Your task to perform on an android device: uninstall "Microsoft Authenticator" Image 0: 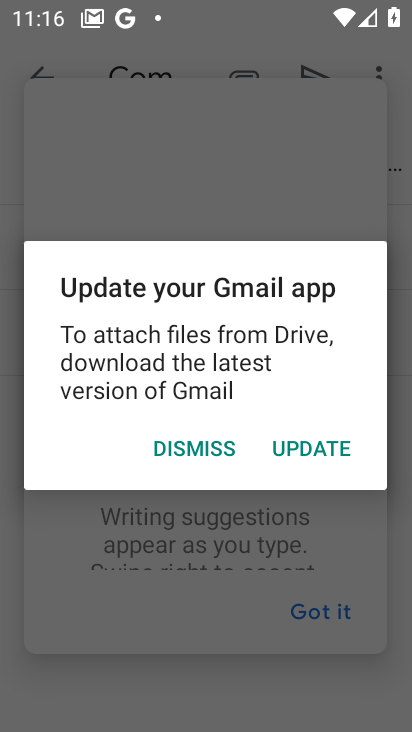
Step 0: press home button
Your task to perform on an android device: uninstall "Microsoft Authenticator" Image 1: 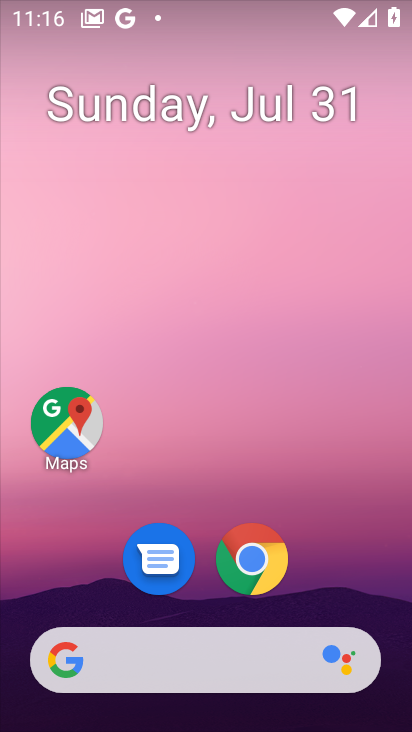
Step 1: drag from (40, 578) to (204, 11)
Your task to perform on an android device: uninstall "Microsoft Authenticator" Image 2: 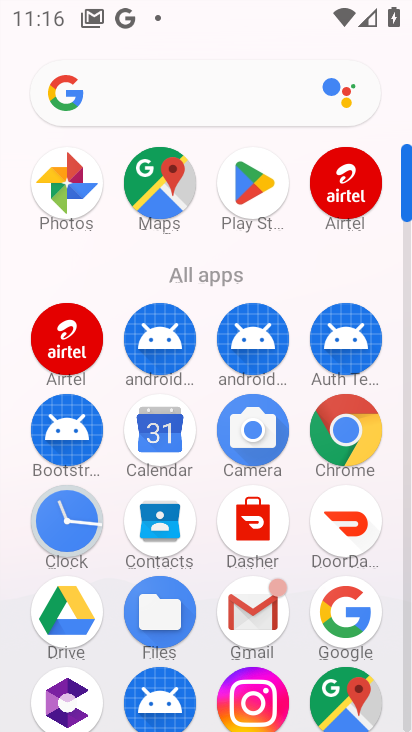
Step 2: click (253, 190)
Your task to perform on an android device: uninstall "Microsoft Authenticator" Image 3: 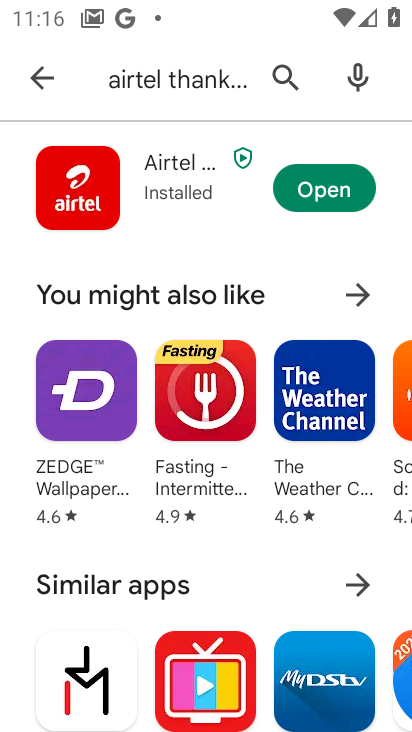
Step 3: click (272, 91)
Your task to perform on an android device: uninstall "Microsoft Authenticator" Image 4: 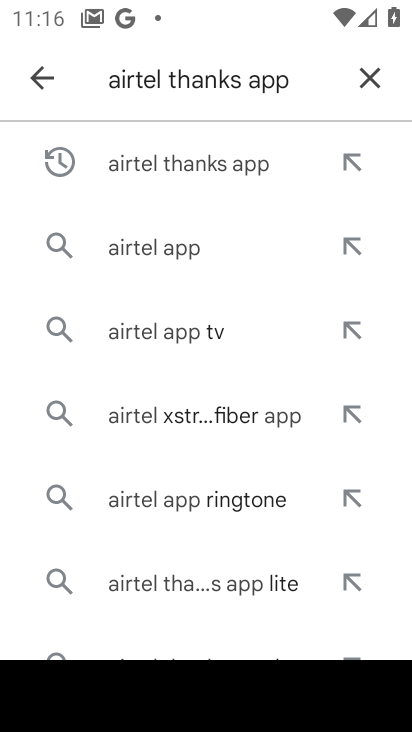
Step 4: click (387, 88)
Your task to perform on an android device: uninstall "Microsoft Authenticator" Image 5: 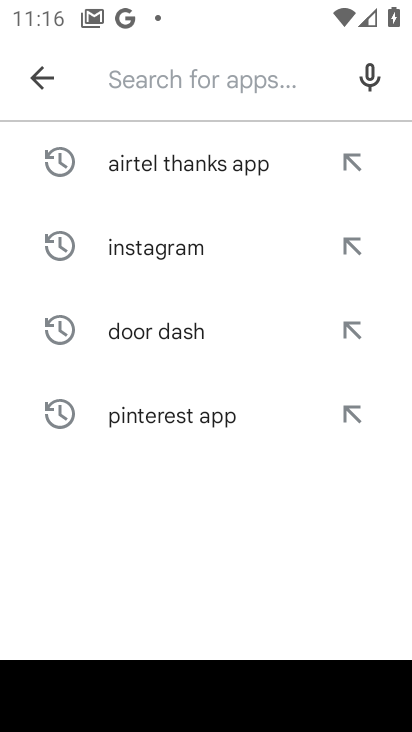
Step 5: click (199, 83)
Your task to perform on an android device: uninstall "Microsoft Authenticator" Image 6: 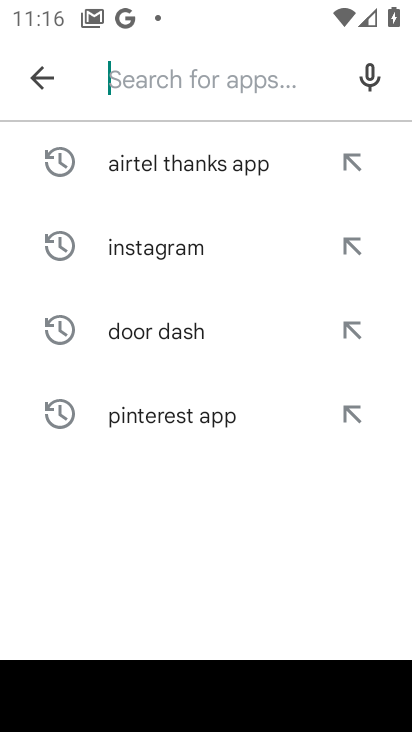
Step 6: type "microsoft authenticator"
Your task to perform on an android device: uninstall "Microsoft Authenticator" Image 7: 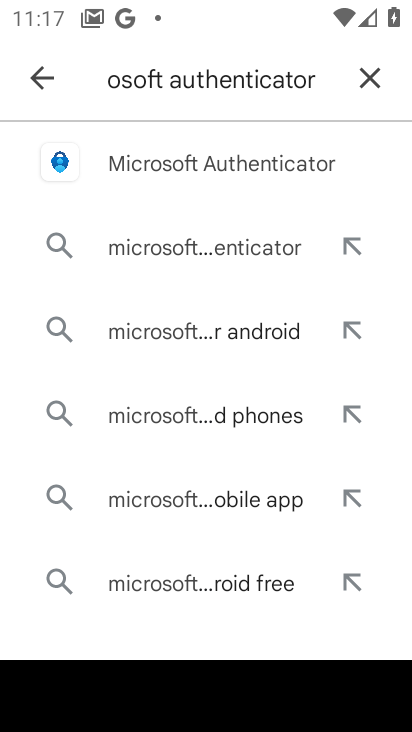
Step 7: click (214, 166)
Your task to perform on an android device: uninstall "Microsoft Authenticator" Image 8: 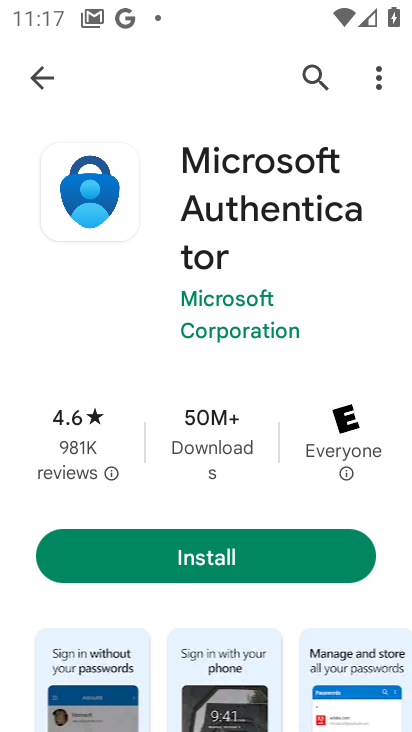
Step 8: task complete